Your task to perform on an android device: turn on bluetooth scan Image 0: 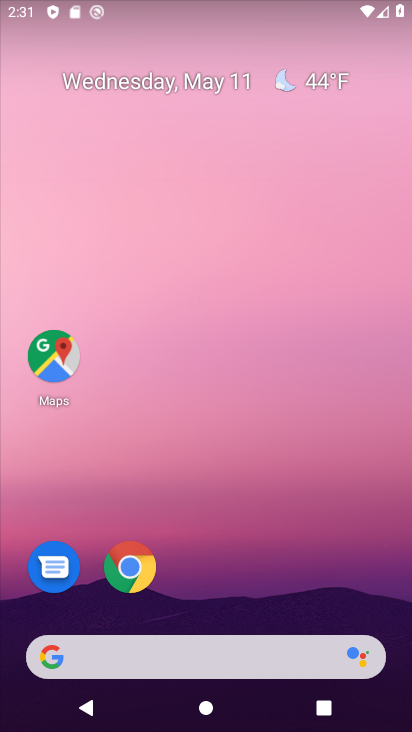
Step 0: drag from (247, 525) to (190, 14)
Your task to perform on an android device: turn on bluetooth scan Image 1: 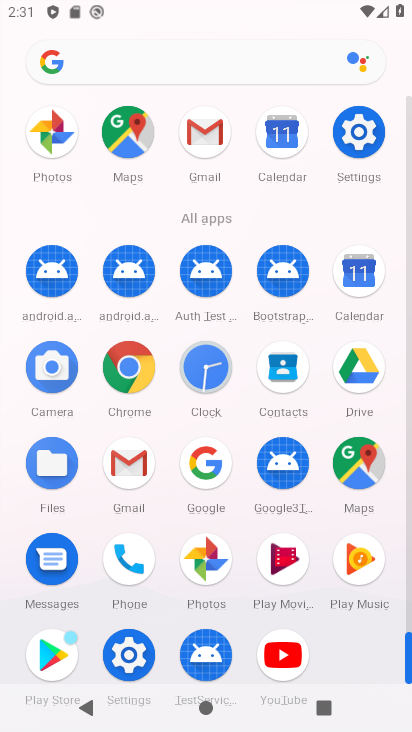
Step 1: click (129, 651)
Your task to perform on an android device: turn on bluetooth scan Image 2: 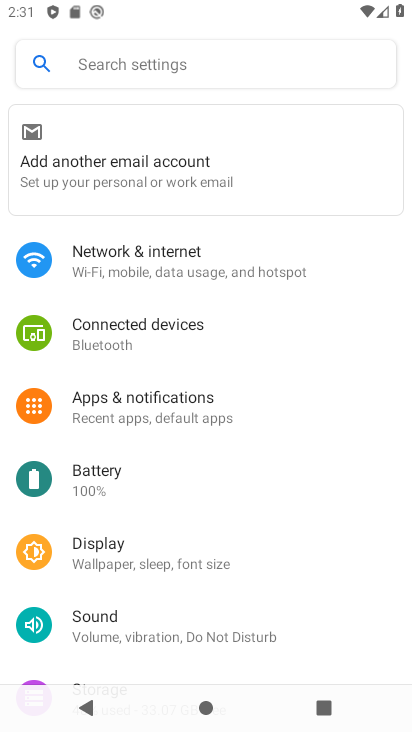
Step 2: drag from (230, 500) to (287, 195)
Your task to perform on an android device: turn on bluetooth scan Image 3: 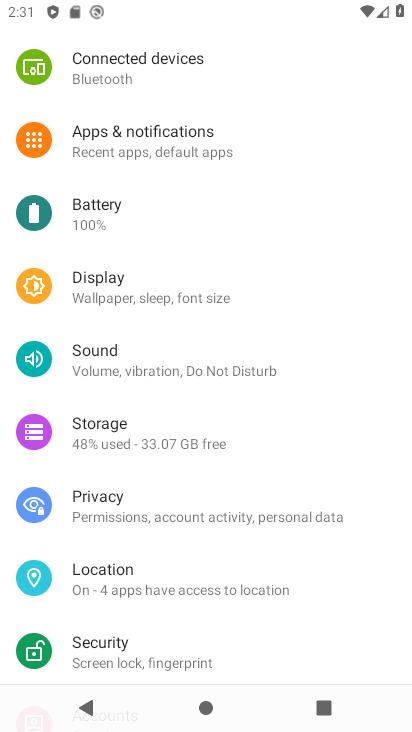
Step 3: click (131, 575)
Your task to perform on an android device: turn on bluetooth scan Image 4: 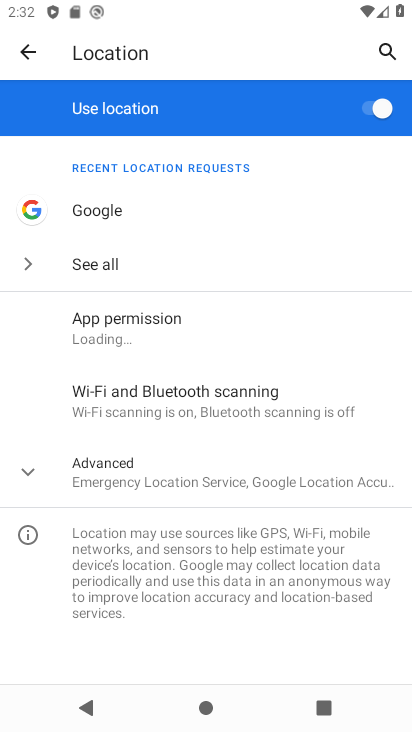
Step 4: click (156, 468)
Your task to perform on an android device: turn on bluetooth scan Image 5: 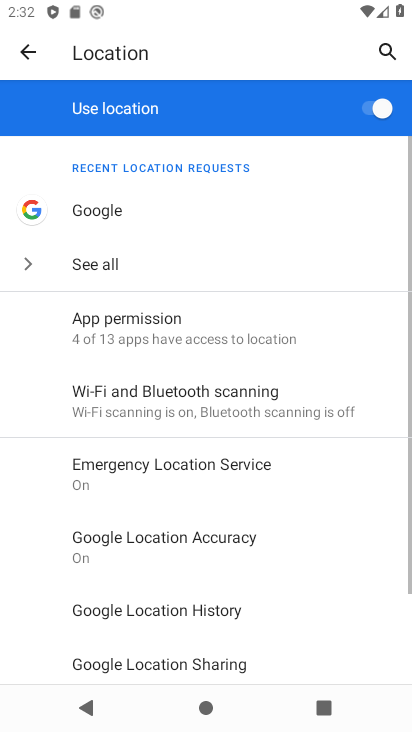
Step 5: drag from (241, 573) to (266, 216)
Your task to perform on an android device: turn on bluetooth scan Image 6: 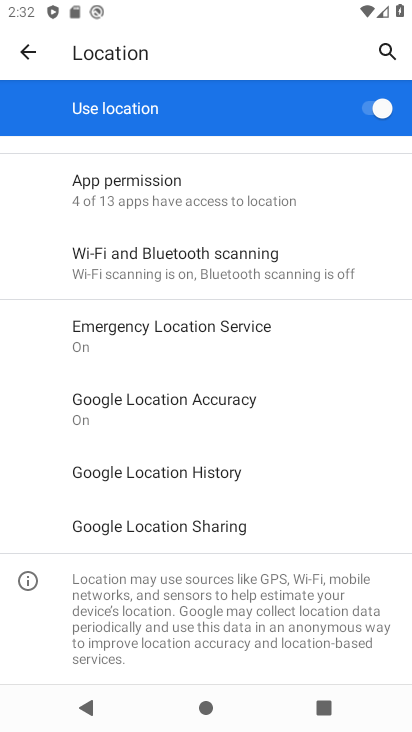
Step 6: click (245, 270)
Your task to perform on an android device: turn on bluetooth scan Image 7: 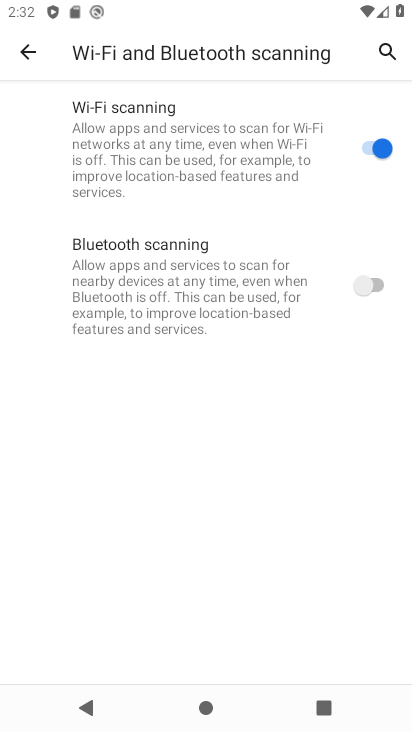
Step 7: click (363, 288)
Your task to perform on an android device: turn on bluetooth scan Image 8: 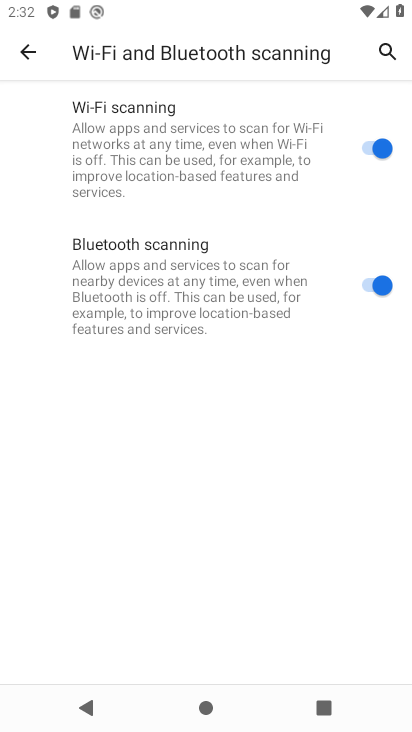
Step 8: task complete